Your task to perform on an android device: toggle sleep mode Image 0: 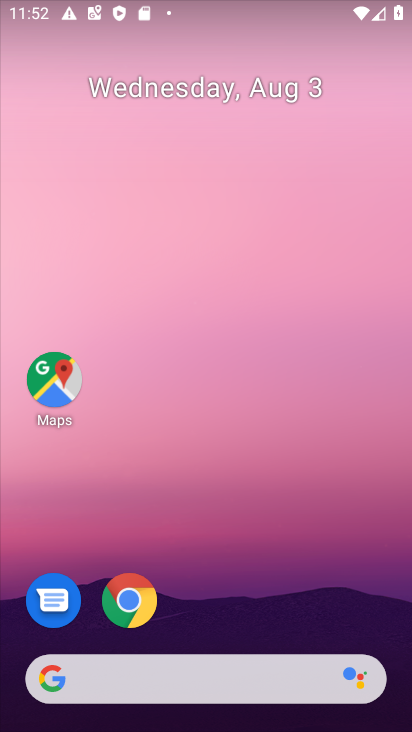
Step 0: drag from (150, 679) to (305, 68)
Your task to perform on an android device: toggle sleep mode Image 1: 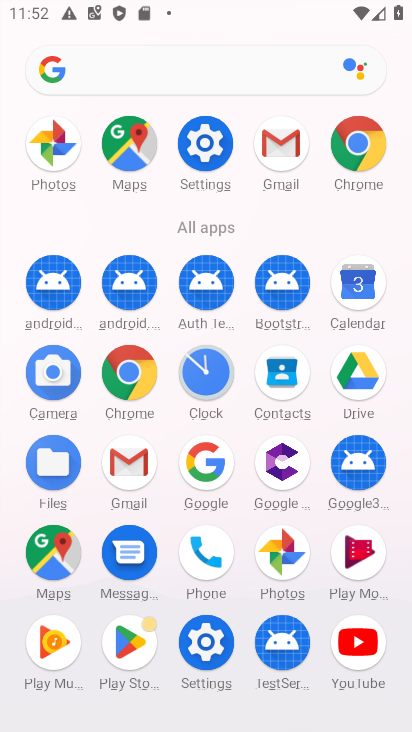
Step 1: click (196, 151)
Your task to perform on an android device: toggle sleep mode Image 2: 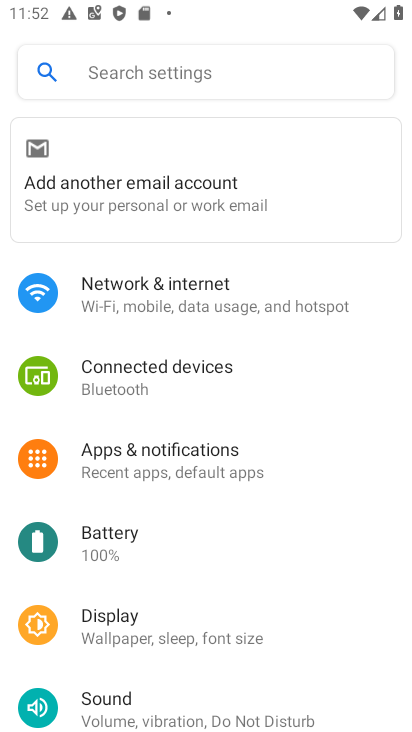
Step 2: click (128, 625)
Your task to perform on an android device: toggle sleep mode Image 3: 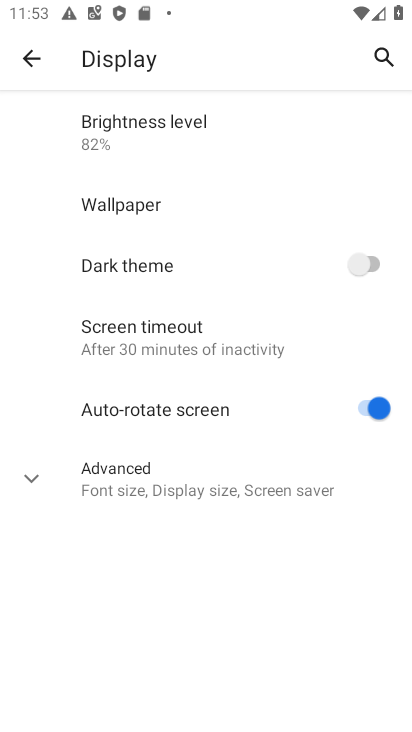
Step 3: task complete